Your task to perform on an android device: Show me productivity apps on the Play Store Image 0: 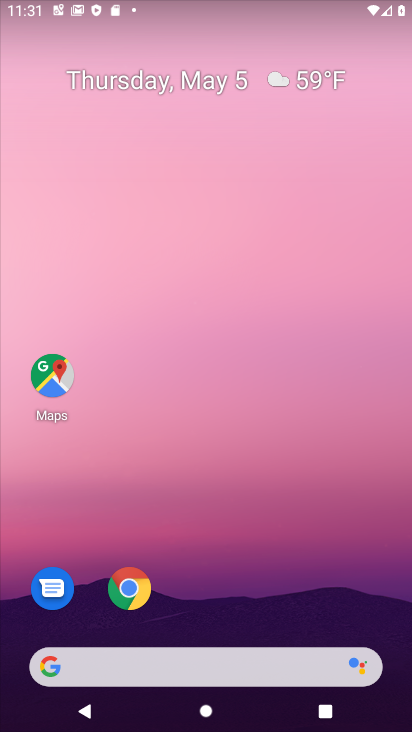
Step 0: drag from (153, 669) to (291, 61)
Your task to perform on an android device: Show me productivity apps on the Play Store Image 1: 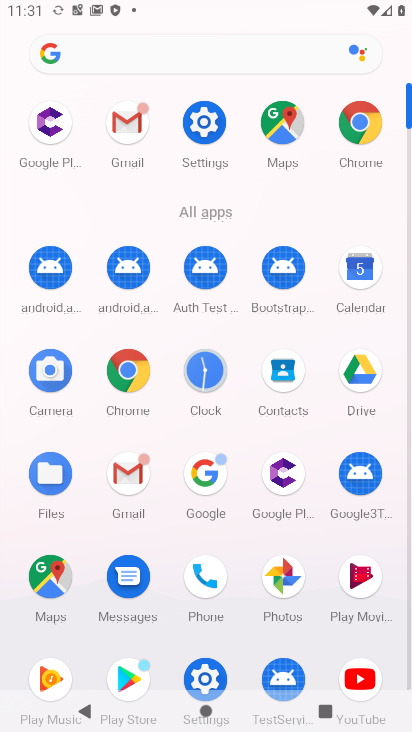
Step 1: click (131, 679)
Your task to perform on an android device: Show me productivity apps on the Play Store Image 2: 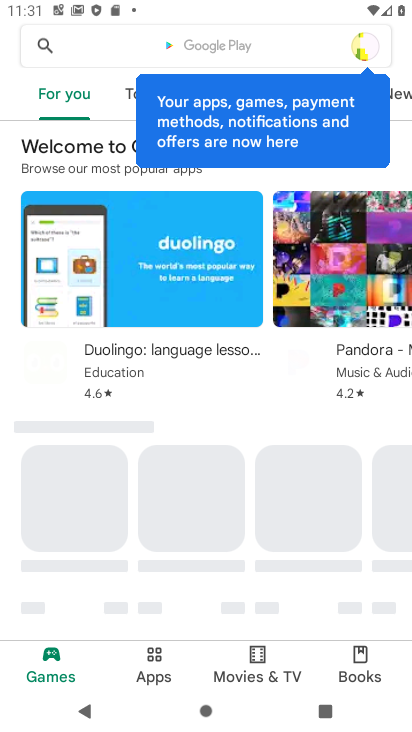
Step 2: click (152, 663)
Your task to perform on an android device: Show me productivity apps on the Play Store Image 3: 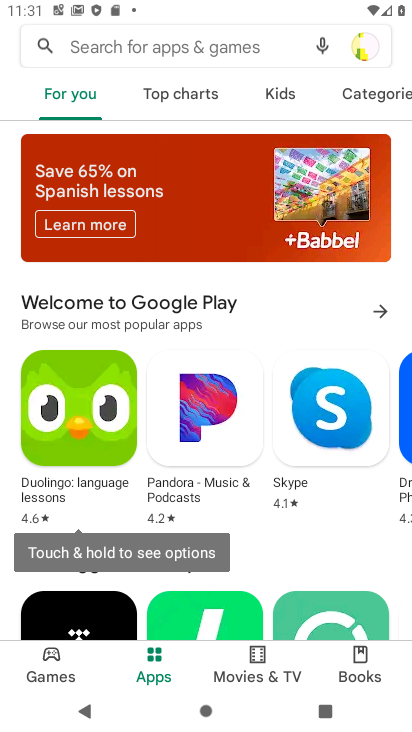
Step 3: click (384, 95)
Your task to perform on an android device: Show me productivity apps on the Play Store Image 4: 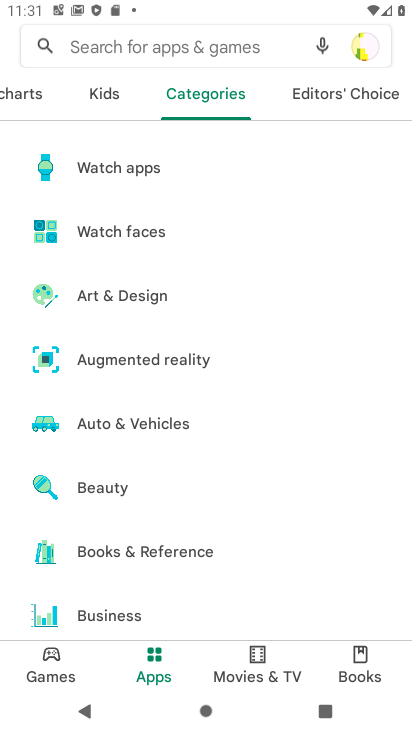
Step 4: drag from (192, 572) to (394, 72)
Your task to perform on an android device: Show me productivity apps on the Play Store Image 5: 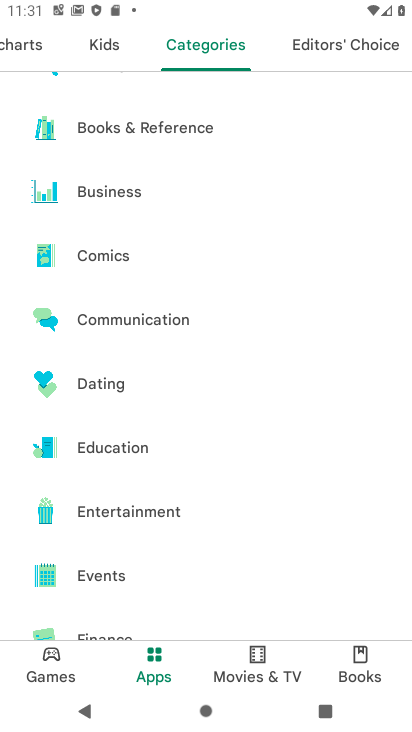
Step 5: drag from (197, 594) to (390, 118)
Your task to perform on an android device: Show me productivity apps on the Play Store Image 6: 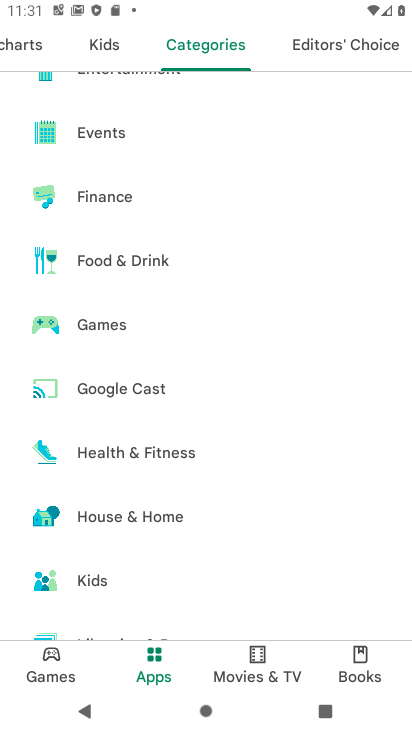
Step 6: drag from (170, 563) to (343, 83)
Your task to perform on an android device: Show me productivity apps on the Play Store Image 7: 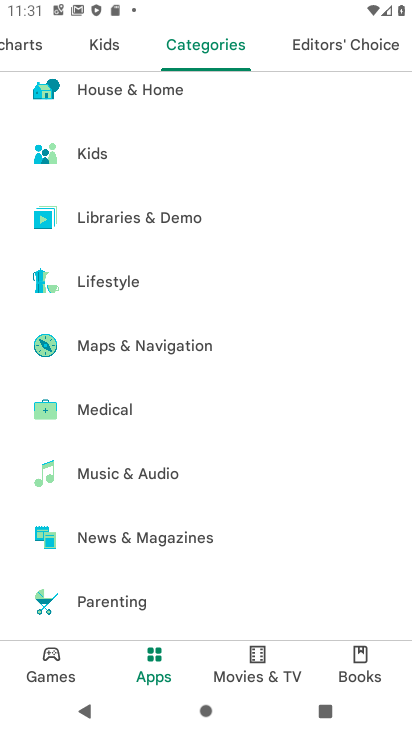
Step 7: drag from (184, 582) to (273, 172)
Your task to perform on an android device: Show me productivity apps on the Play Store Image 8: 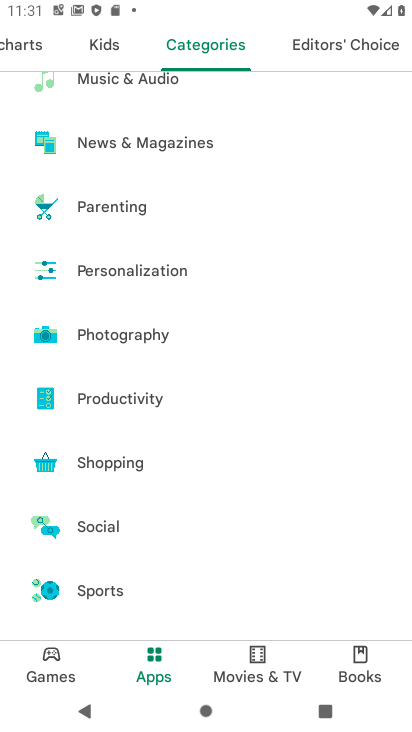
Step 8: click (146, 400)
Your task to perform on an android device: Show me productivity apps on the Play Store Image 9: 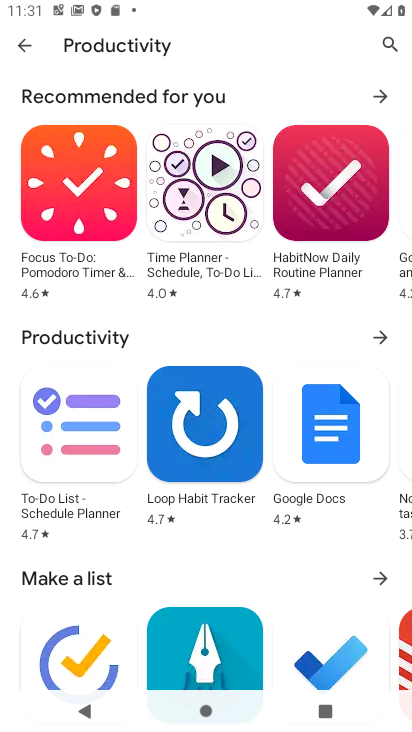
Step 9: task complete